Your task to perform on an android device: turn on sleep mode Image 0: 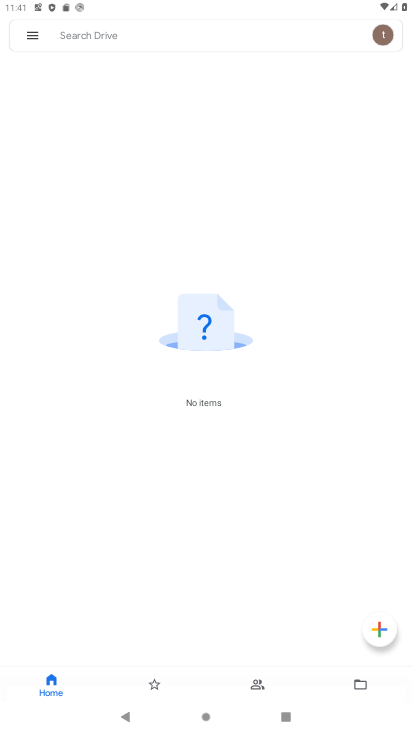
Step 0: press back button
Your task to perform on an android device: turn on sleep mode Image 1: 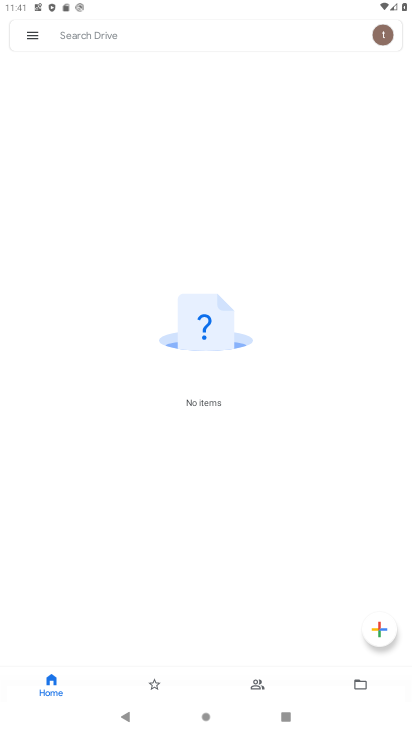
Step 1: press back button
Your task to perform on an android device: turn on sleep mode Image 2: 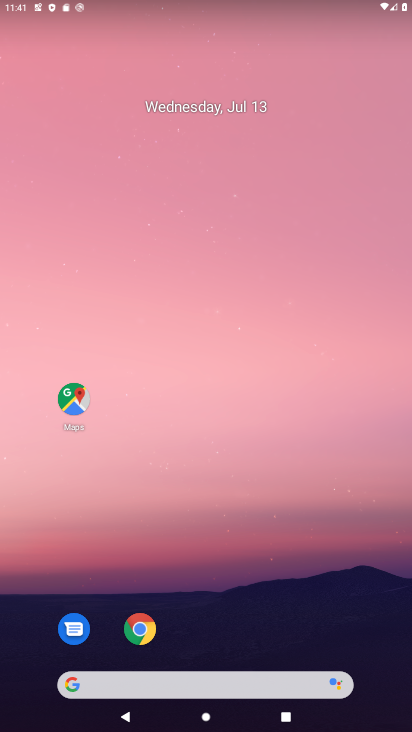
Step 2: drag from (246, 711) to (150, 101)
Your task to perform on an android device: turn on sleep mode Image 3: 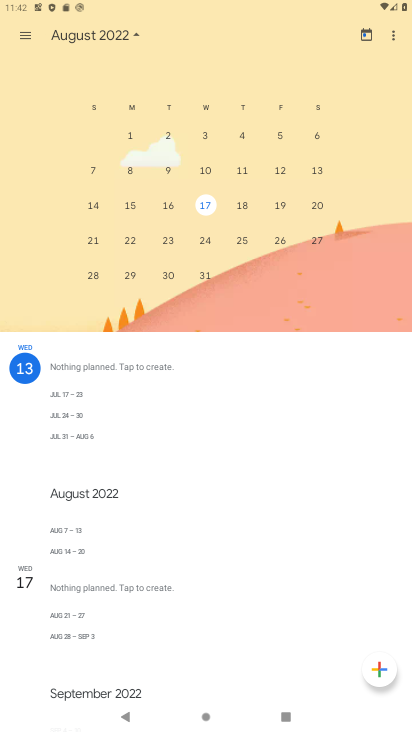
Step 3: press back button
Your task to perform on an android device: turn on sleep mode Image 4: 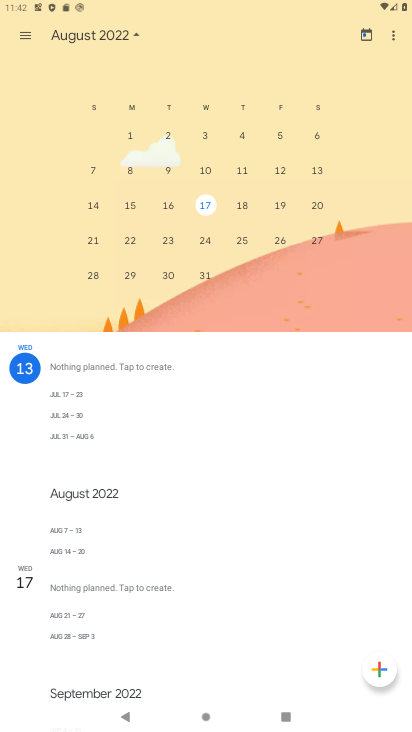
Step 4: press back button
Your task to perform on an android device: turn on sleep mode Image 5: 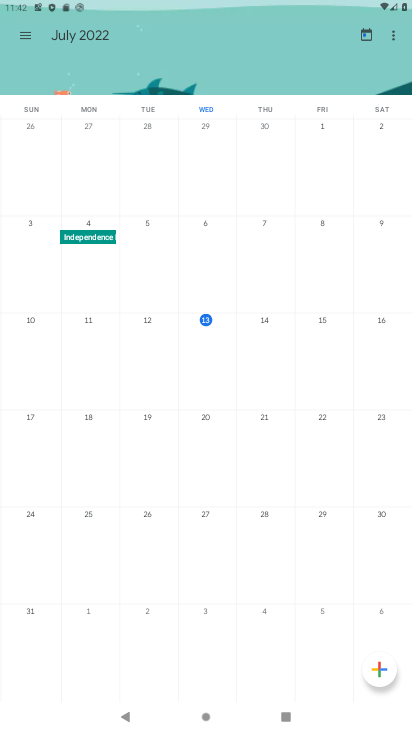
Step 5: press back button
Your task to perform on an android device: turn on sleep mode Image 6: 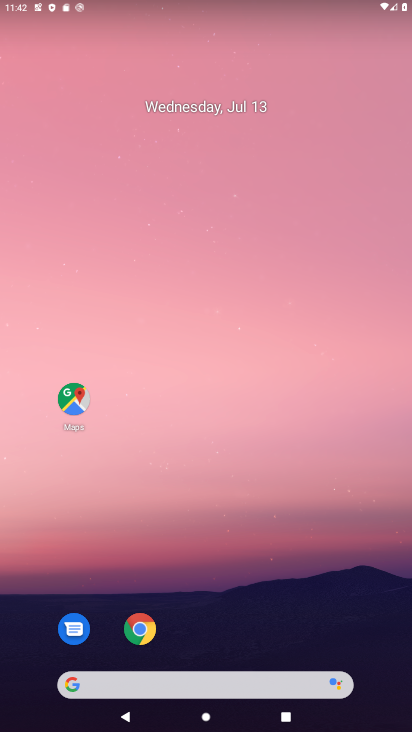
Step 6: press home button
Your task to perform on an android device: turn on sleep mode Image 7: 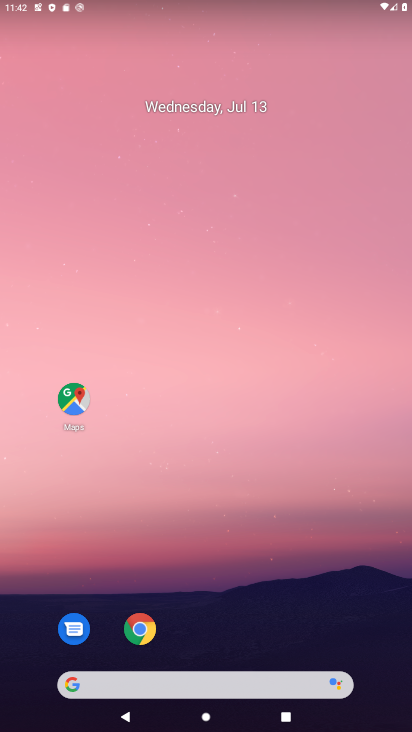
Step 7: drag from (249, 702) to (192, 124)
Your task to perform on an android device: turn on sleep mode Image 8: 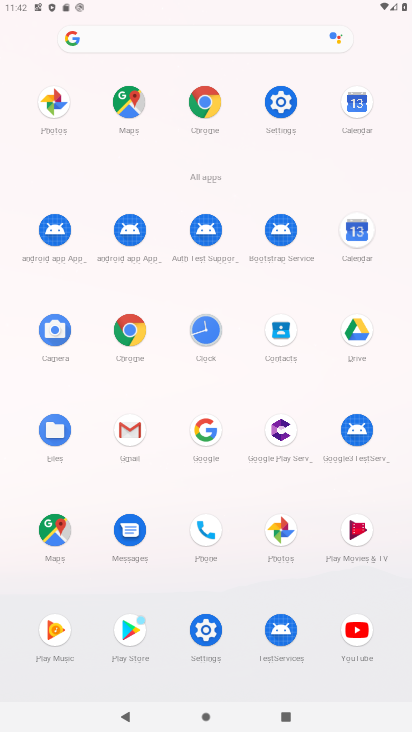
Step 8: click (214, 624)
Your task to perform on an android device: turn on sleep mode Image 9: 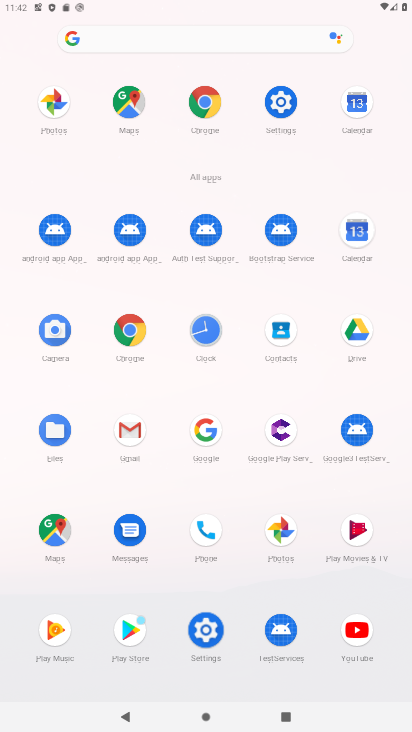
Step 9: click (214, 624)
Your task to perform on an android device: turn on sleep mode Image 10: 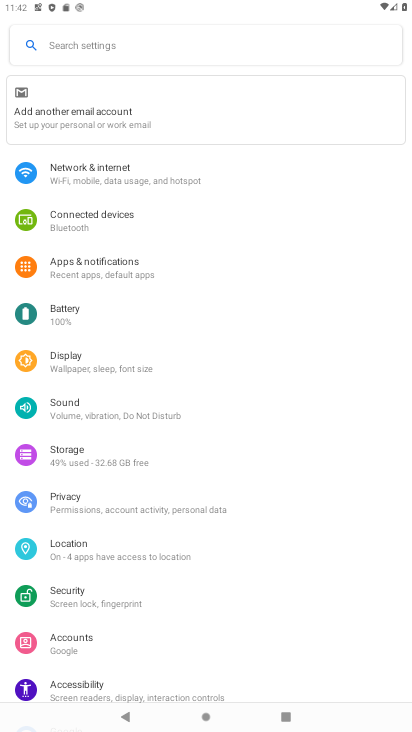
Step 10: click (83, 365)
Your task to perform on an android device: turn on sleep mode Image 11: 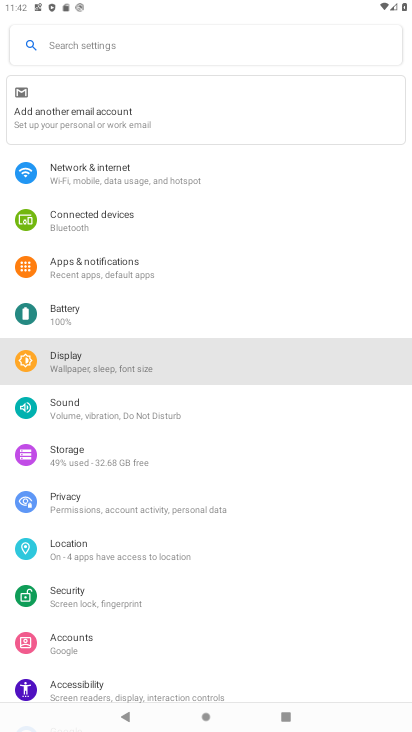
Step 11: click (83, 365)
Your task to perform on an android device: turn on sleep mode Image 12: 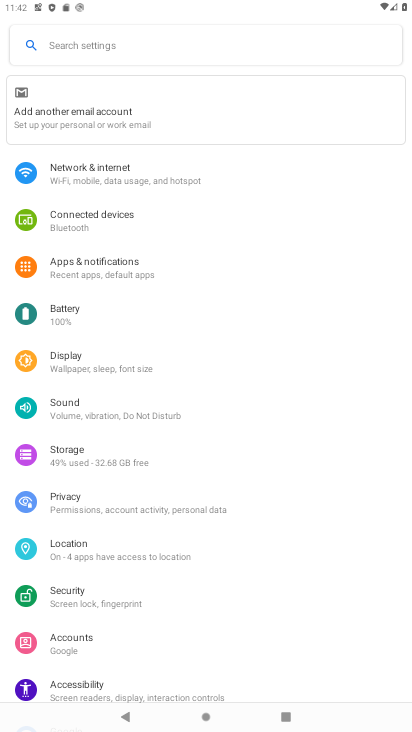
Step 12: click (83, 365)
Your task to perform on an android device: turn on sleep mode Image 13: 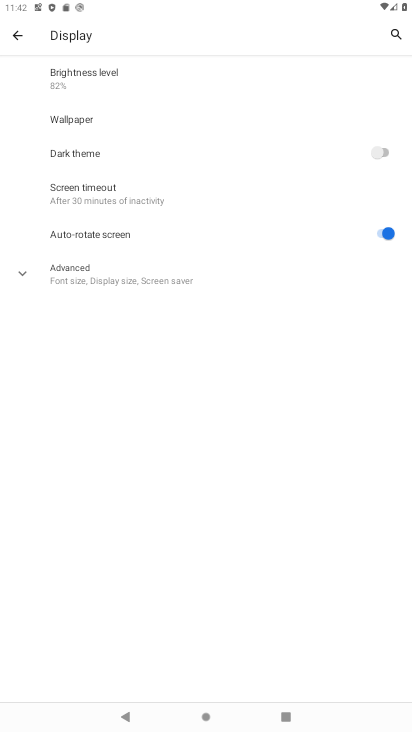
Step 13: click (80, 196)
Your task to perform on an android device: turn on sleep mode Image 14: 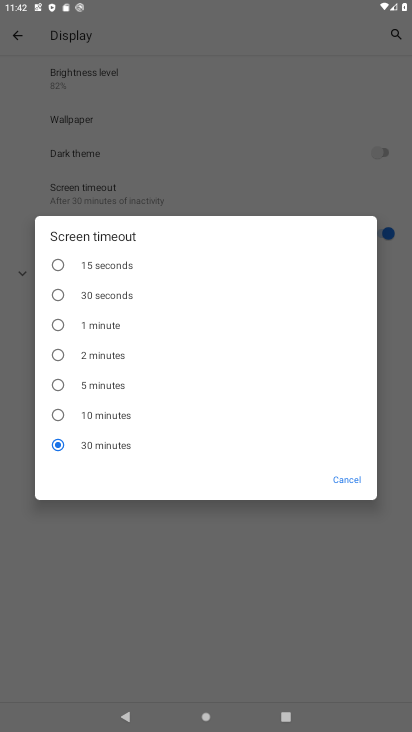
Step 14: task complete